Your task to perform on an android device: open app "Pandora - Music & Podcasts" (install if not already installed) and go to login screen Image 0: 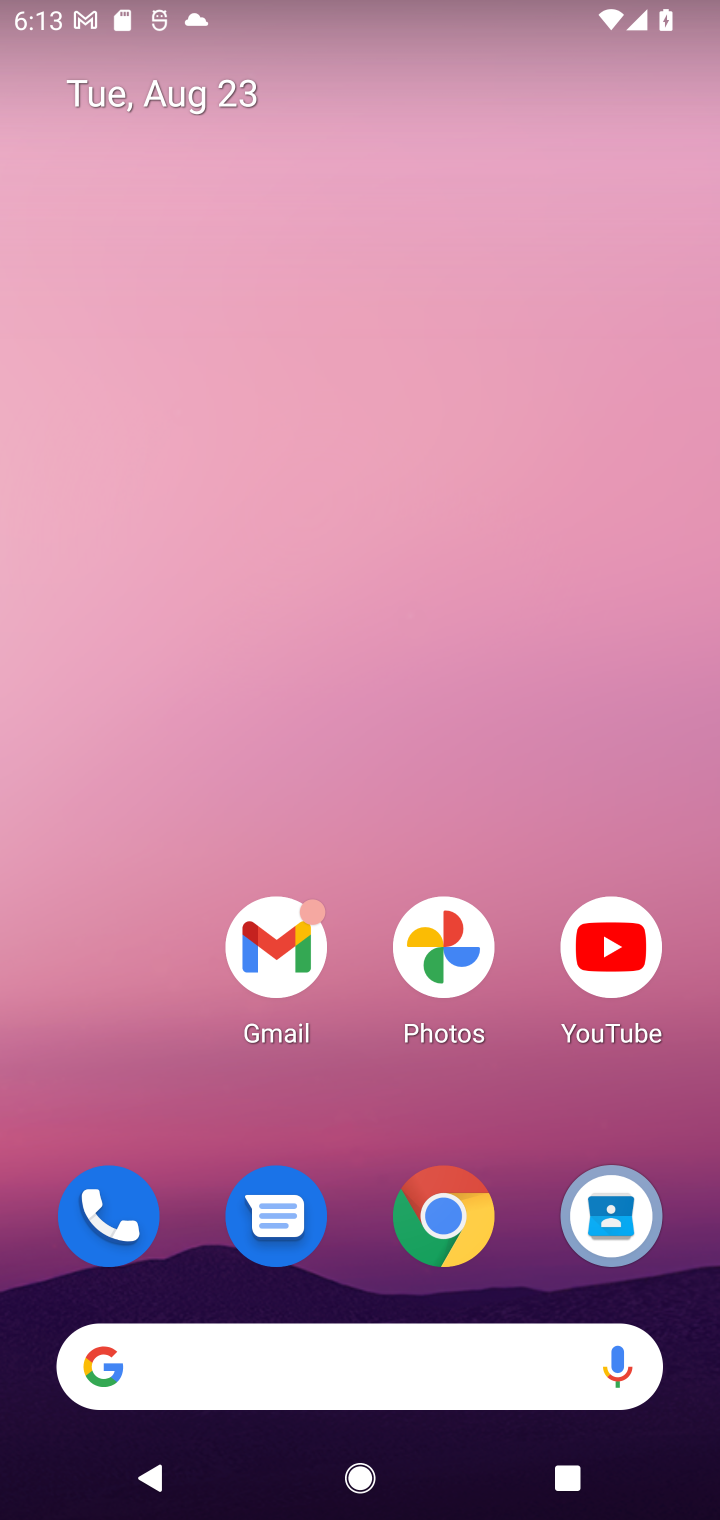
Step 0: drag from (464, 681) to (517, 178)
Your task to perform on an android device: open app "Pandora - Music & Podcasts" (install if not already installed) and go to login screen Image 1: 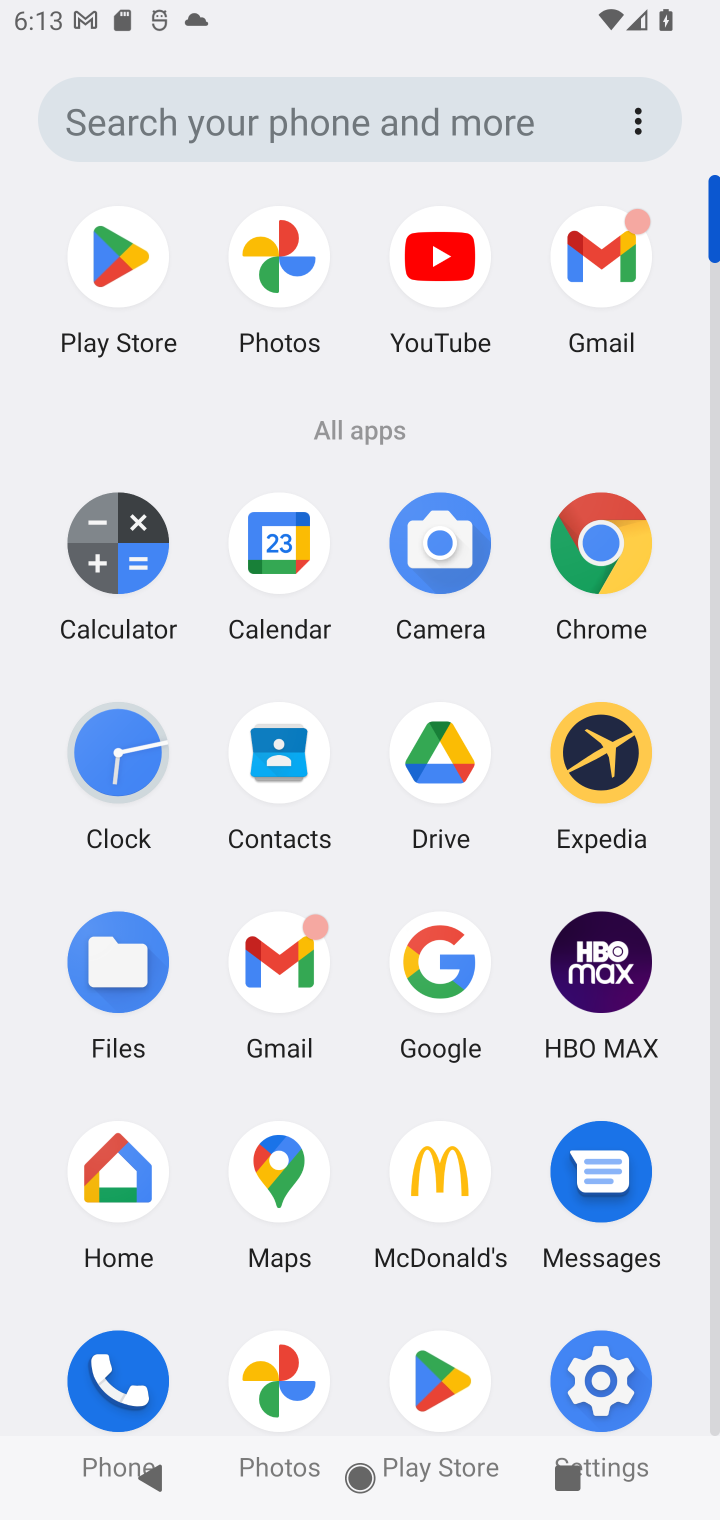
Step 1: click (417, 1393)
Your task to perform on an android device: open app "Pandora - Music & Podcasts" (install if not already installed) and go to login screen Image 2: 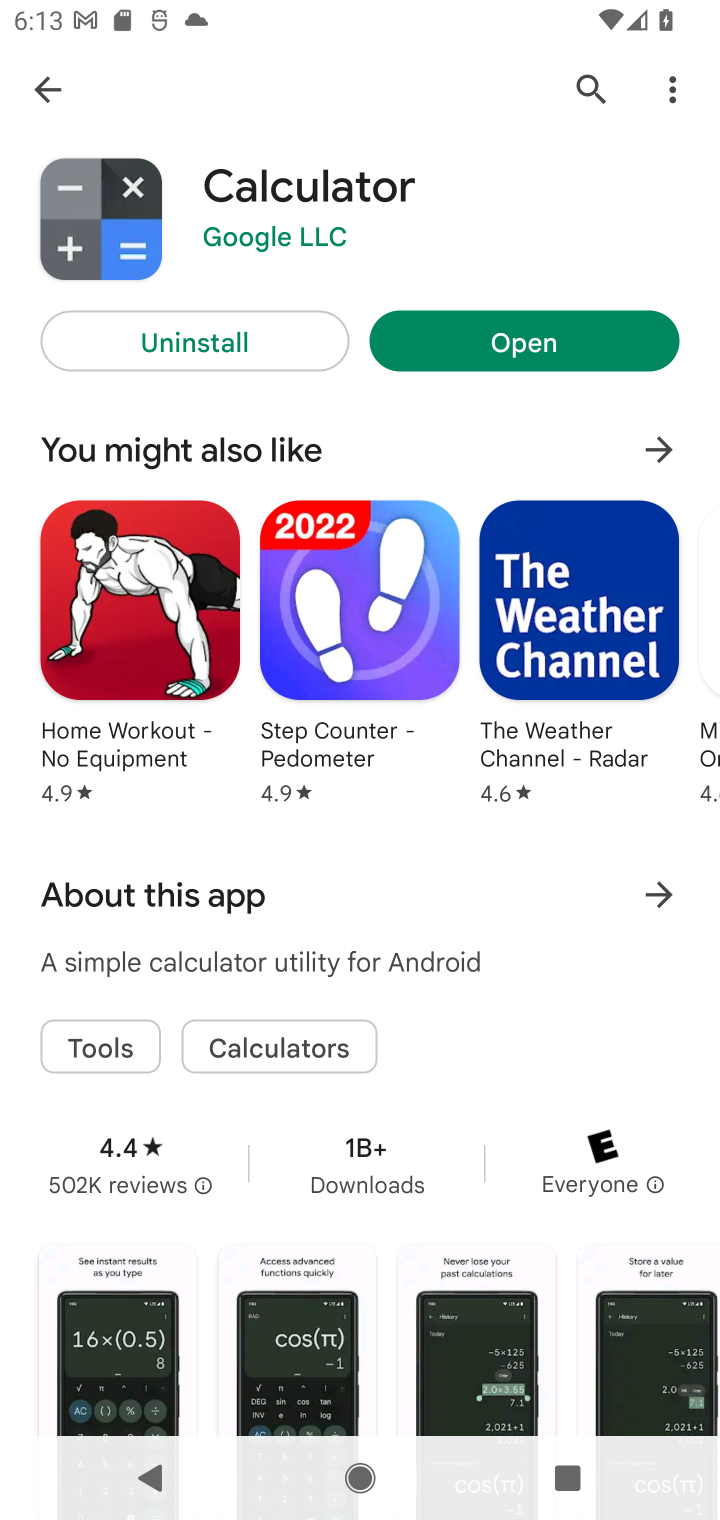
Step 2: click (592, 86)
Your task to perform on an android device: open app "Pandora - Music & Podcasts" (install if not already installed) and go to login screen Image 3: 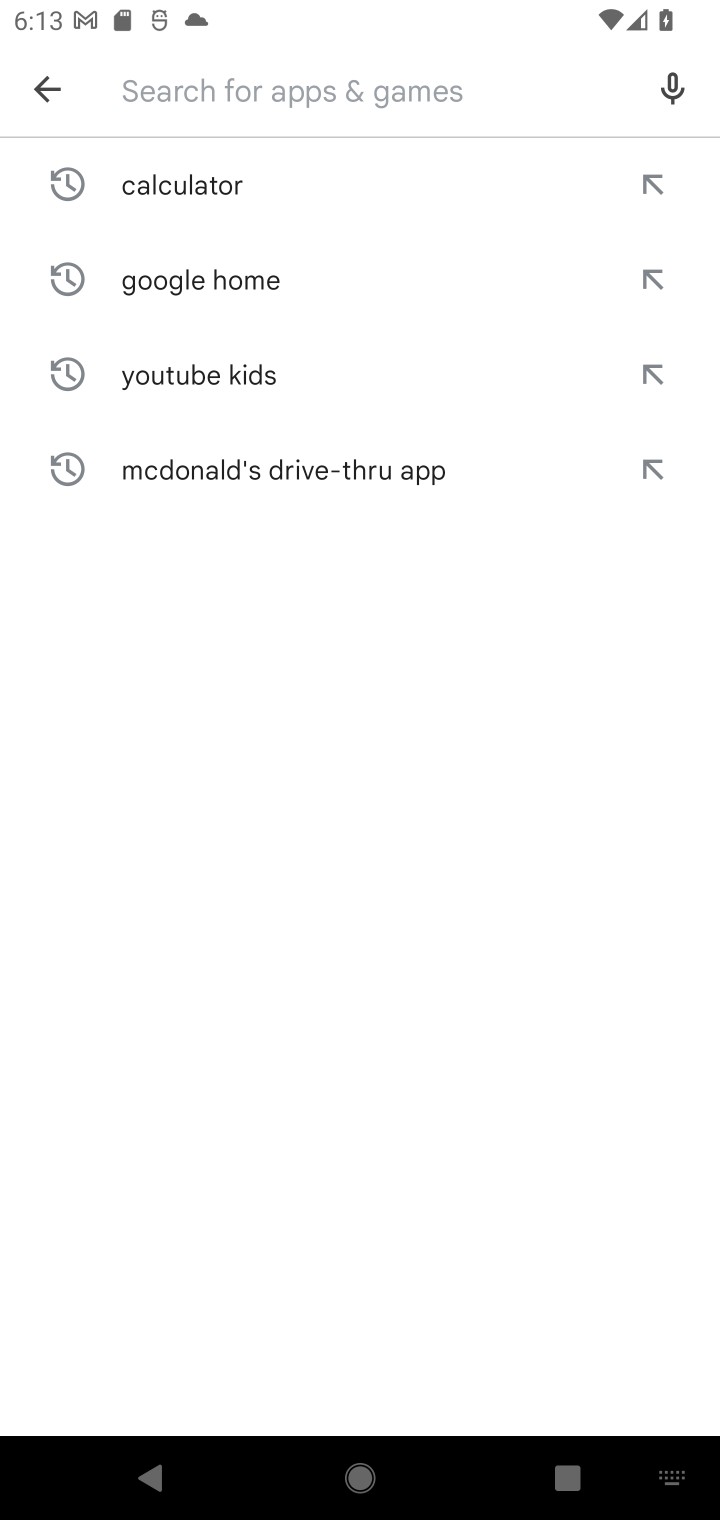
Step 3: type "Pandora - Music & Podcasts"
Your task to perform on an android device: open app "Pandora - Music & Podcasts" (install if not already installed) and go to login screen Image 4: 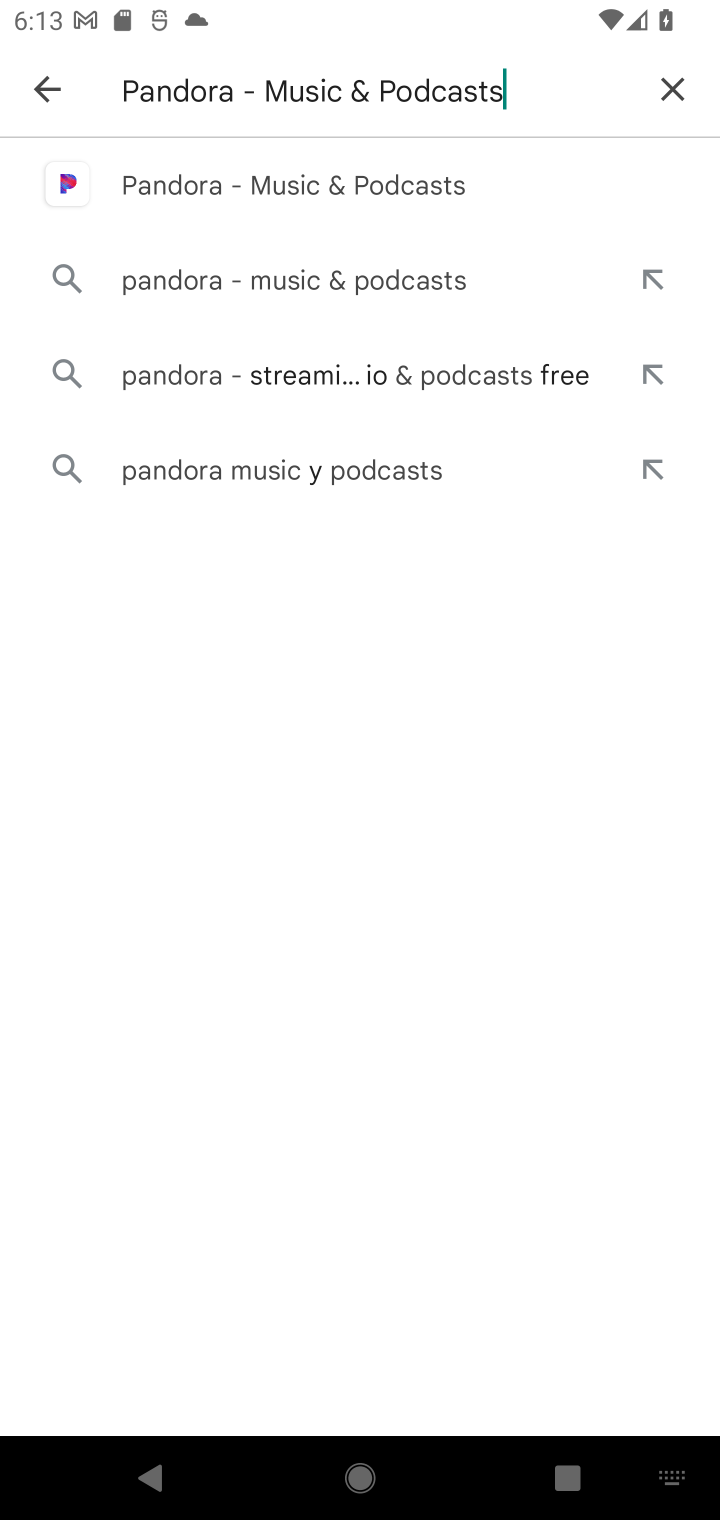
Step 4: click (314, 173)
Your task to perform on an android device: open app "Pandora - Music & Podcasts" (install if not already installed) and go to login screen Image 5: 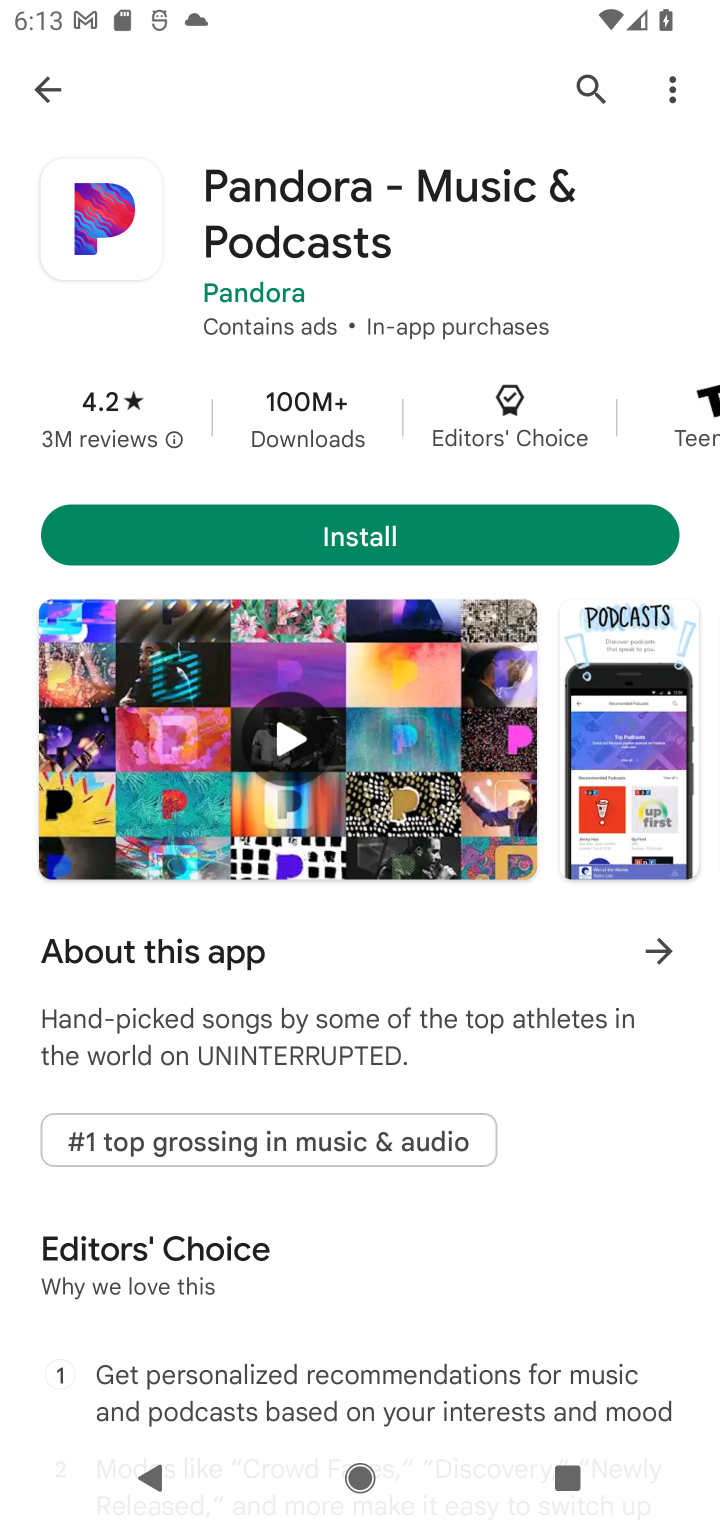
Step 5: click (354, 541)
Your task to perform on an android device: open app "Pandora - Music & Podcasts" (install if not already installed) and go to login screen Image 6: 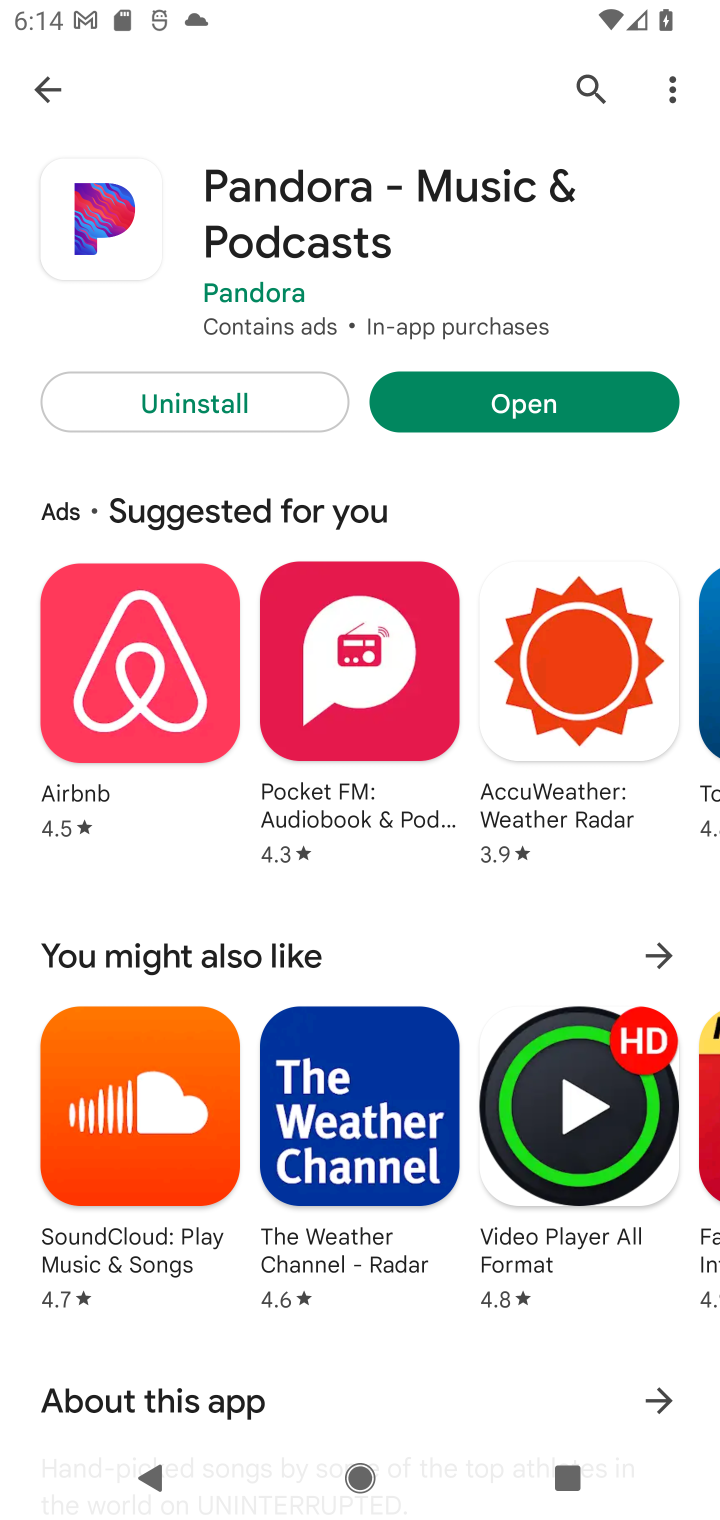
Step 6: click (481, 386)
Your task to perform on an android device: open app "Pandora - Music & Podcasts" (install if not already installed) and go to login screen Image 7: 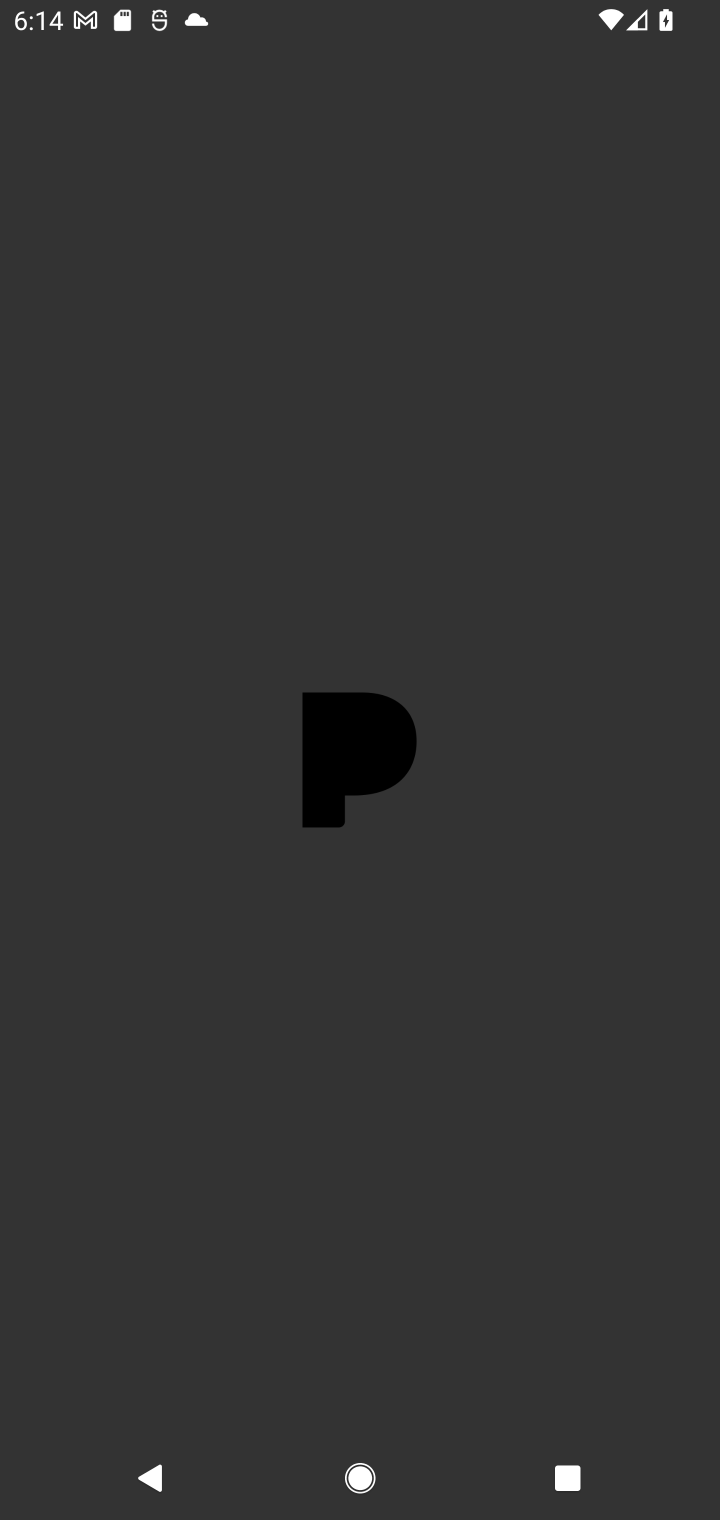
Step 7: click (481, 386)
Your task to perform on an android device: open app "Pandora - Music & Podcasts" (install if not already installed) and go to login screen Image 8: 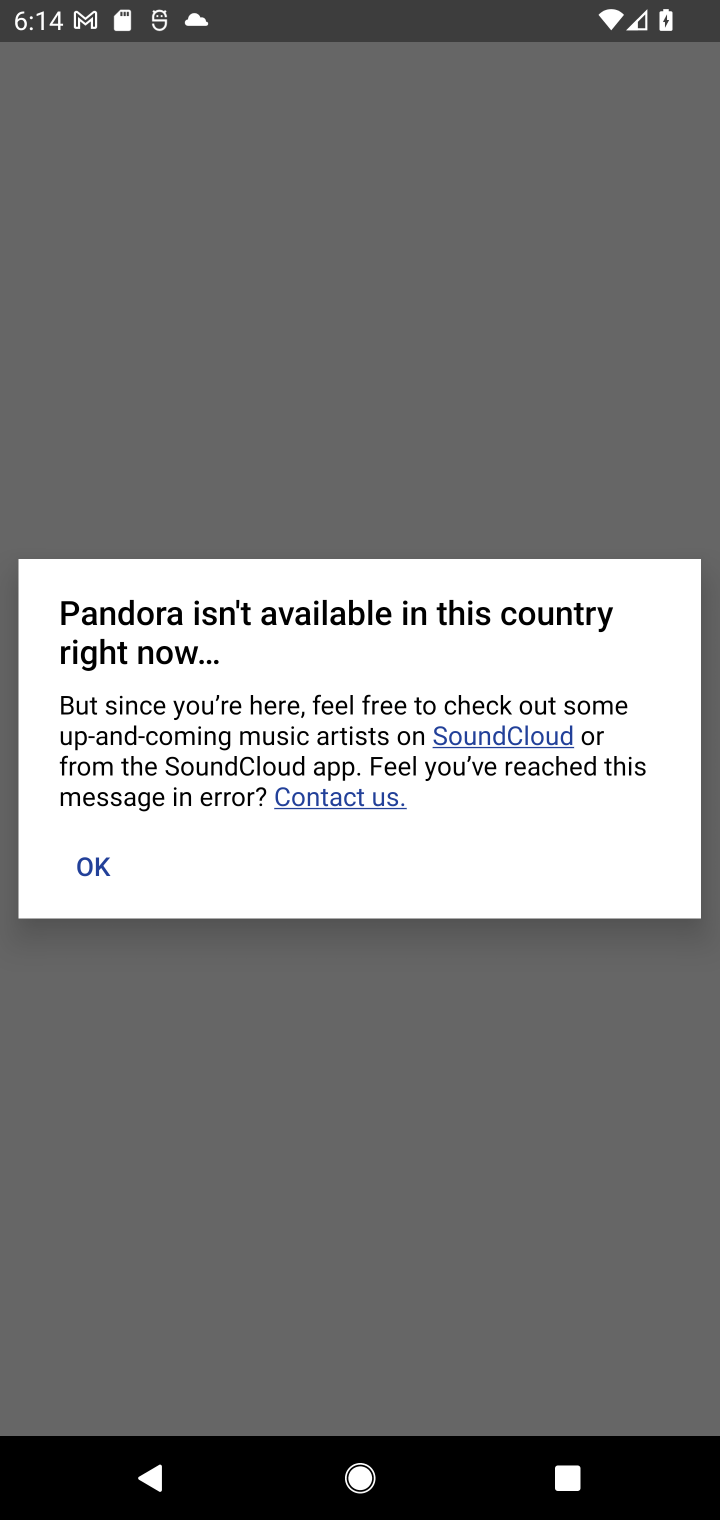
Step 8: task complete